Your task to perform on an android device: Go to internet settings Image 0: 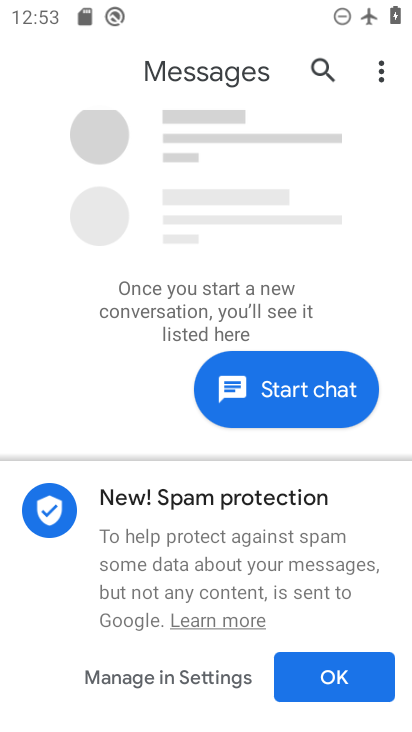
Step 0: press home button
Your task to perform on an android device: Go to internet settings Image 1: 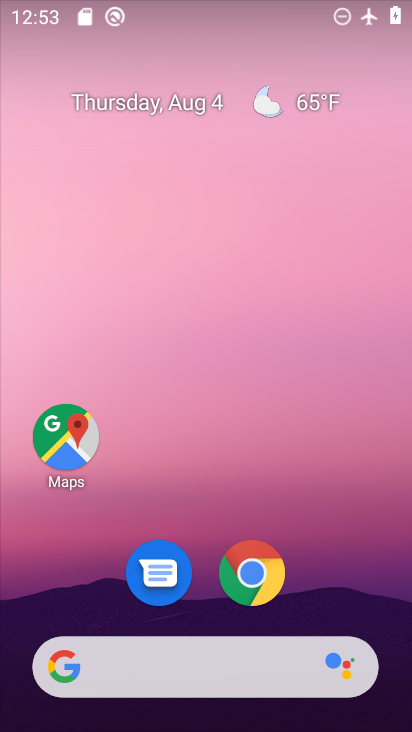
Step 1: drag from (353, 542) to (301, 49)
Your task to perform on an android device: Go to internet settings Image 2: 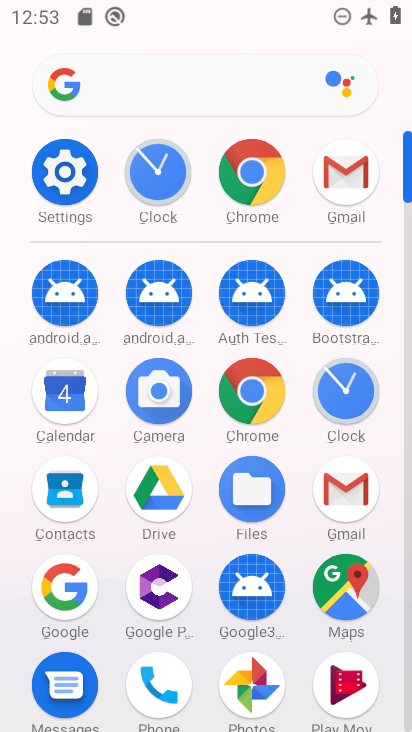
Step 2: click (76, 171)
Your task to perform on an android device: Go to internet settings Image 3: 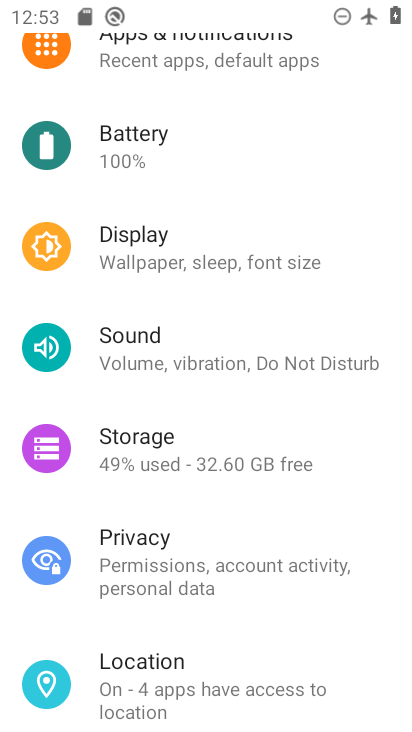
Step 3: drag from (310, 114) to (318, 607)
Your task to perform on an android device: Go to internet settings Image 4: 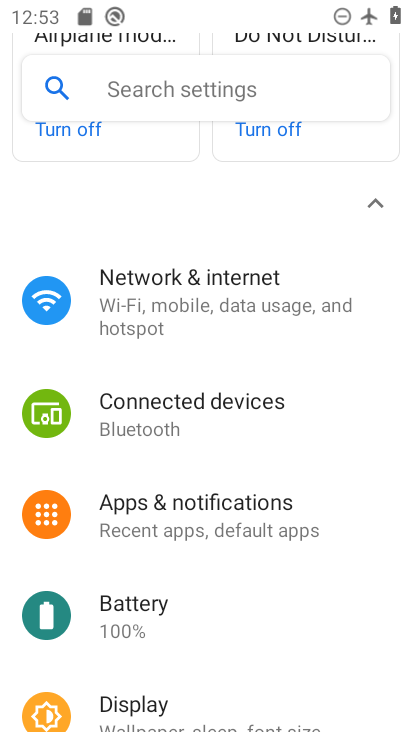
Step 4: click (239, 294)
Your task to perform on an android device: Go to internet settings Image 5: 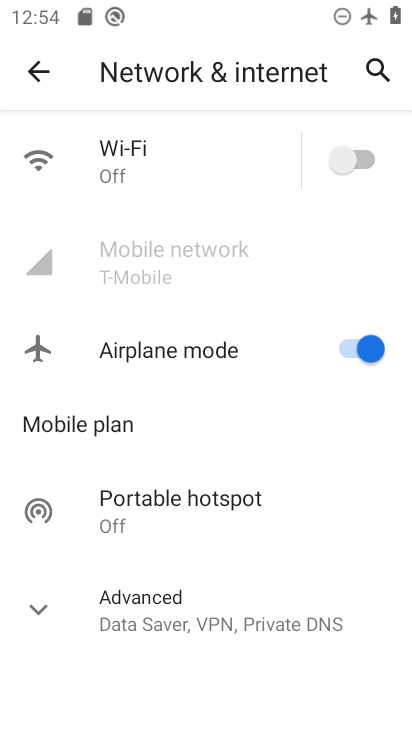
Step 5: click (136, 615)
Your task to perform on an android device: Go to internet settings Image 6: 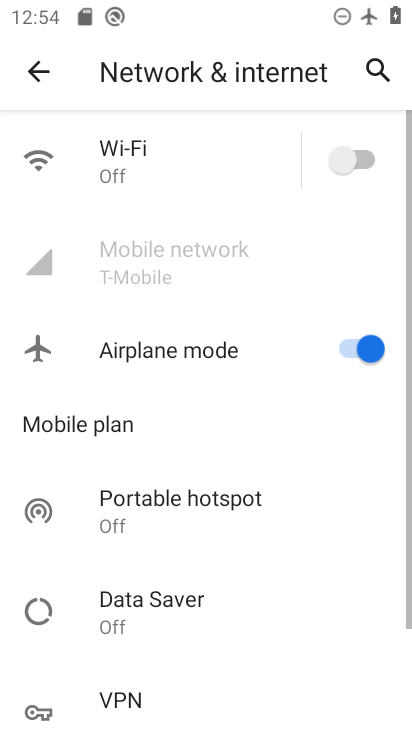
Step 6: task complete